Your task to perform on an android device: show emergency info Image 0: 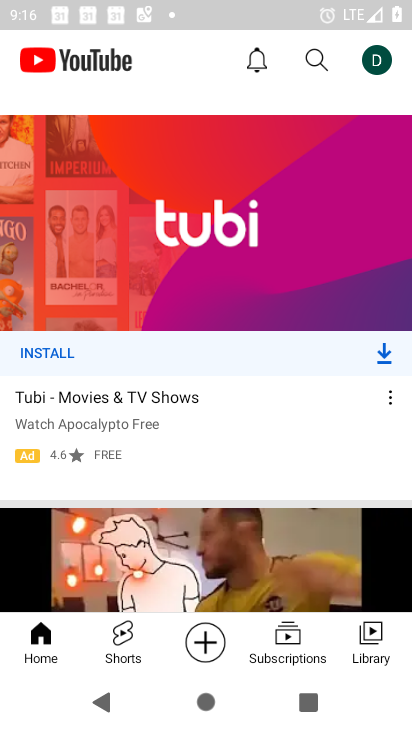
Step 0: press back button
Your task to perform on an android device: show emergency info Image 1: 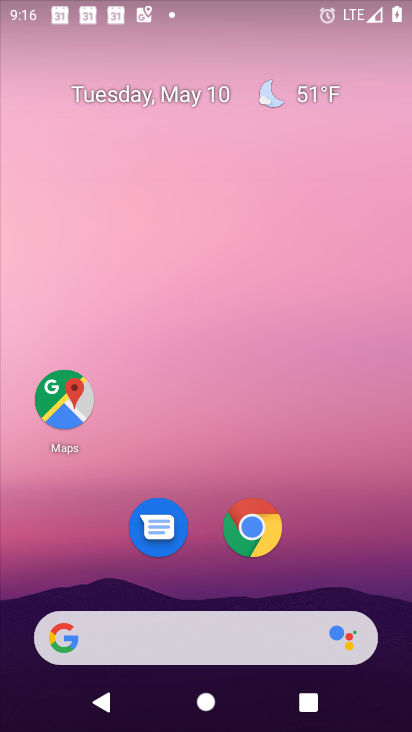
Step 1: drag from (255, 592) to (248, 13)
Your task to perform on an android device: show emergency info Image 2: 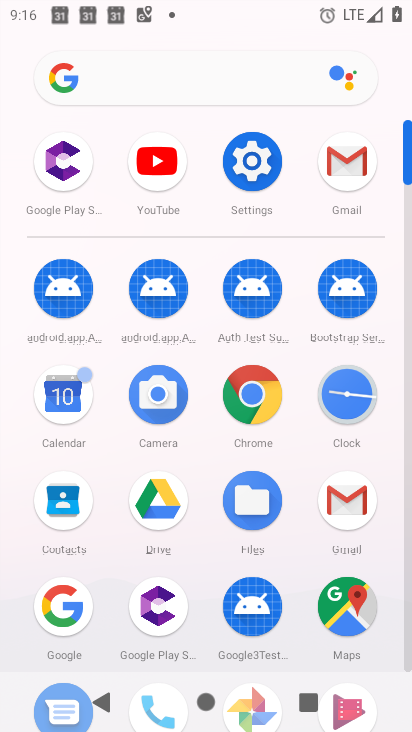
Step 2: click (248, 145)
Your task to perform on an android device: show emergency info Image 3: 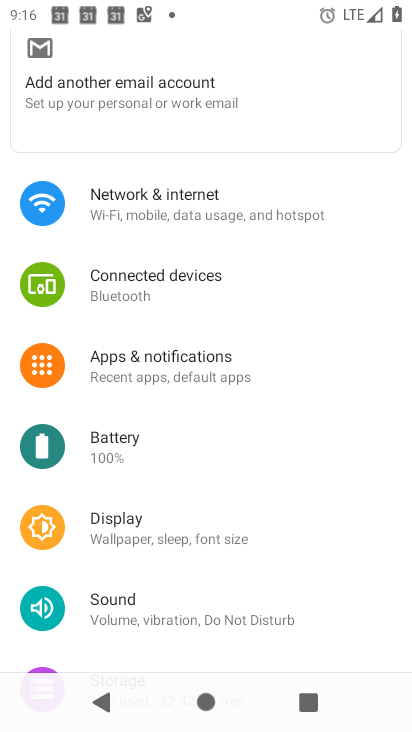
Step 3: drag from (197, 512) to (248, 7)
Your task to perform on an android device: show emergency info Image 4: 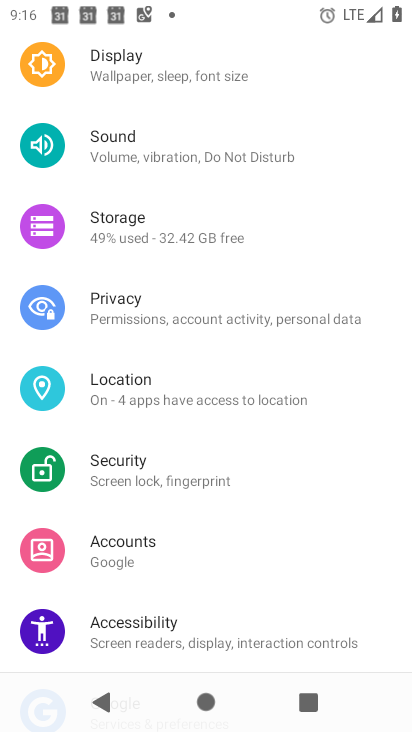
Step 4: drag from (162, 593) to (134, 67)
Your task to perform on an android device: show emergency info Image 5: 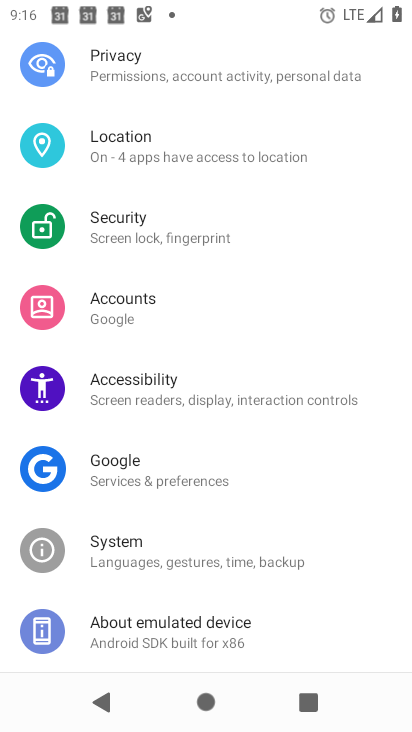
Step 5: click (167, 621)
Your task to perform on an android device: show emergency info Image 6: 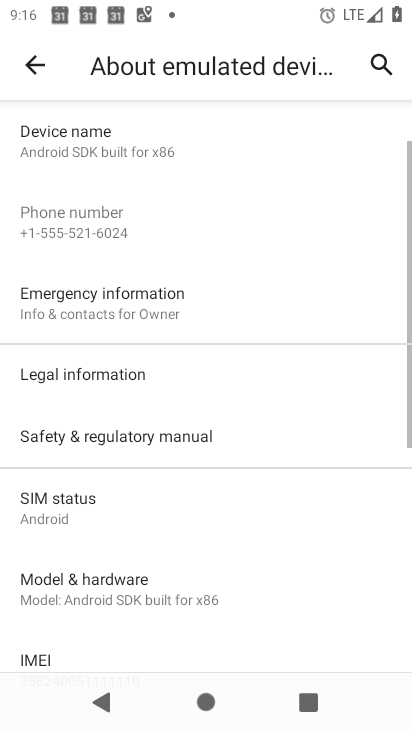
Step 6: drag from (264, 497) to (275, 413)
Your task to perform on an android device: show emergency info Image 7: 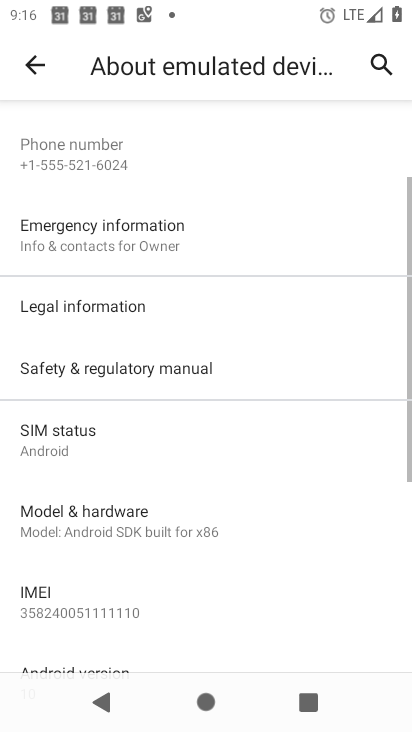
Step 7: click (160, 238)
Your task to perform on an android device: show emergency info Image 8: 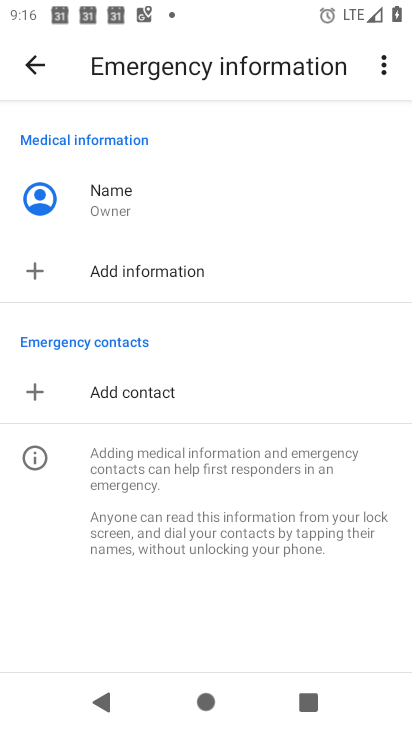
Step 8: task complete